Your task to perform on an android device: find which apps use the phone's location Image 0: 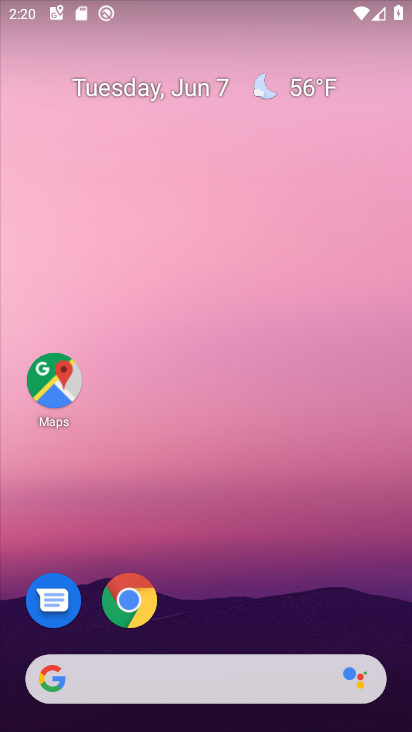
Step 0: drag from (239, 553) to (275, 181)
Your task to perform on an android device: find which apps use the phone's location Image 1: 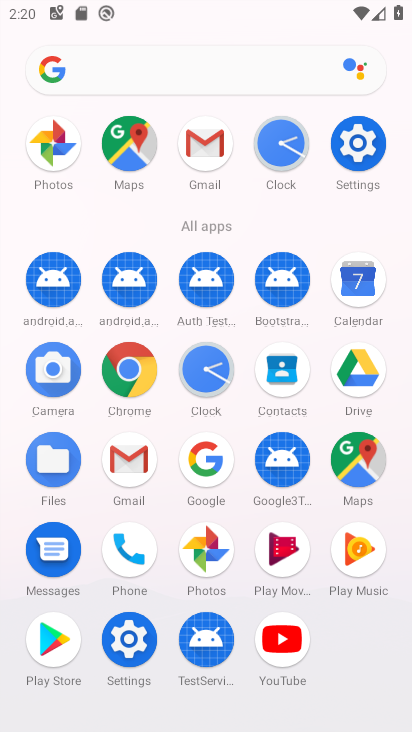
Step 1: click (138, 659)
Your task to perform on an android device: find which apps use the phone's location Image 2: 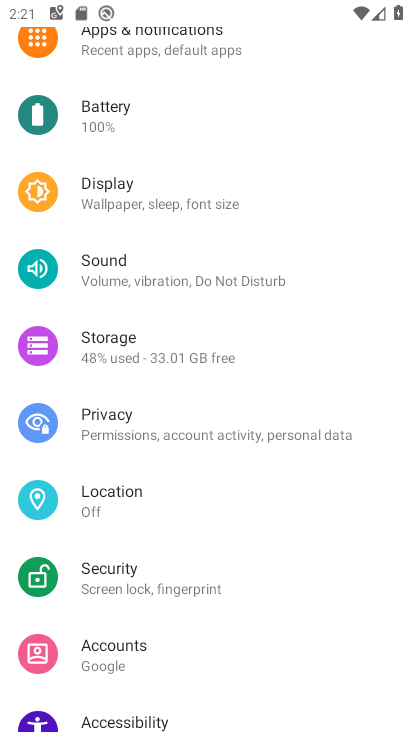
Step 2: click (133, 510)
Your task to perform on an android device: find which apps use the phone's location Image 3: 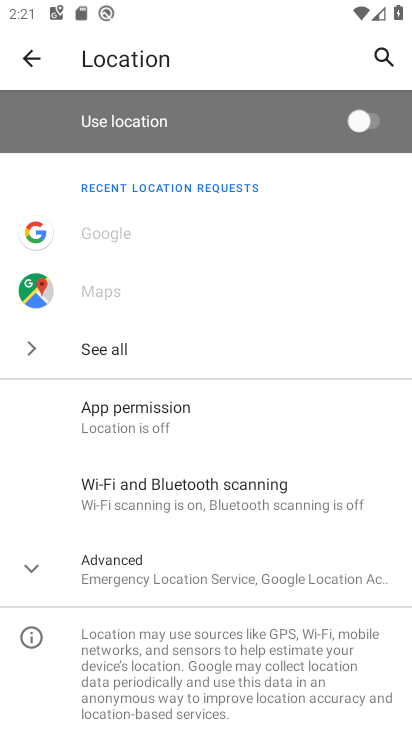
Step 3: click (121, 403)
Your task to perform on an android device: find which apps use the phone's location Image 4: 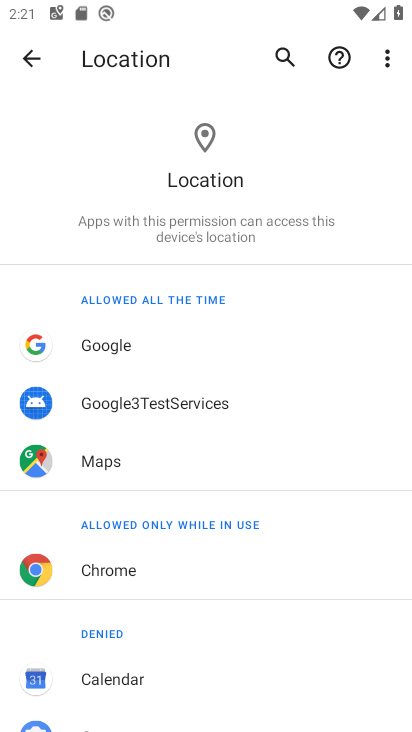
Step 4: task complete